Your task to perform on an android device: Open Amazon Image 0: 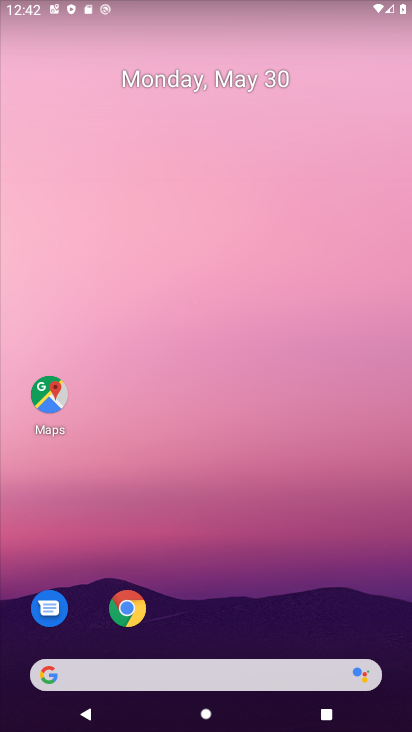
Step 0: drag from (255, 507) to (267, 44)
Your task to perform on an android device: Open Amazon Image 1: 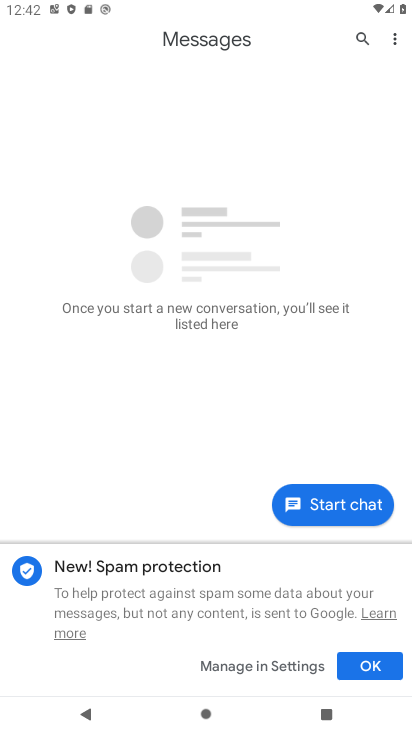
Step 1: press home button
Your task to perform on an android device: Open Amazon Image 2: 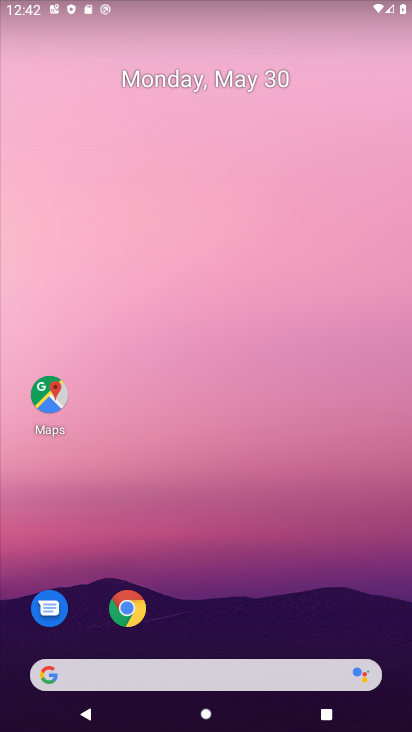
Step 2: click (131, 611)
Your task to perform on an android device: Open Amazon Image 3: 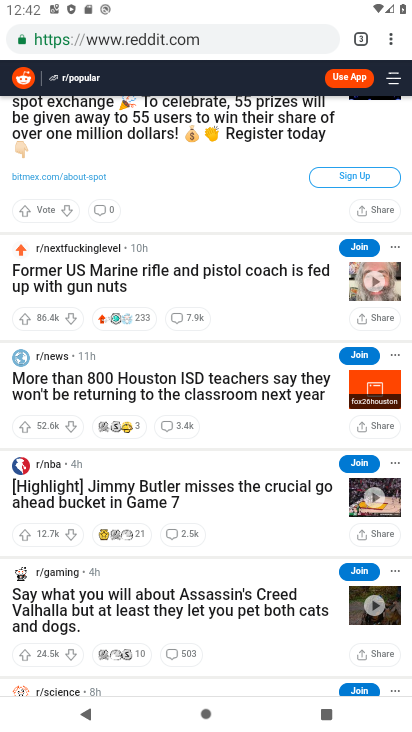
Step 3: click (368, 43)
Your task to perform on an android device: Open Amazon Image 4: 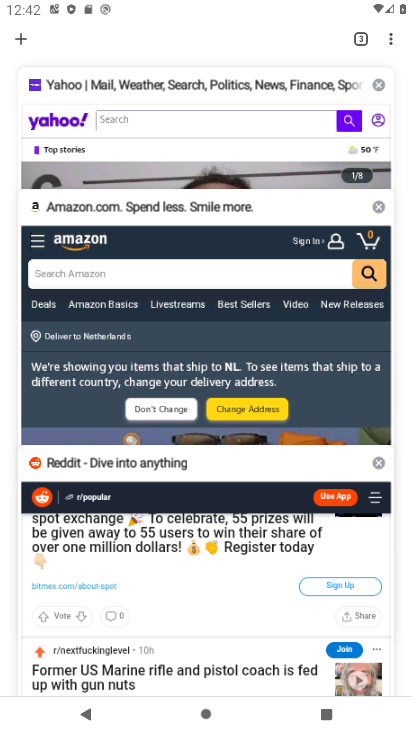
Step 4: click (293, 345)
Your task to perform on an android device: Open Amazon Image 5: 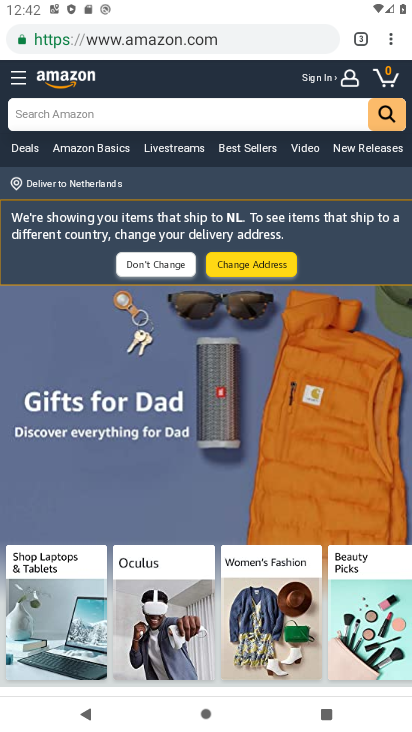
Step 5: task complete